Your task to perform on an android device: remove spam from my inbox in the gmail app Image 0: 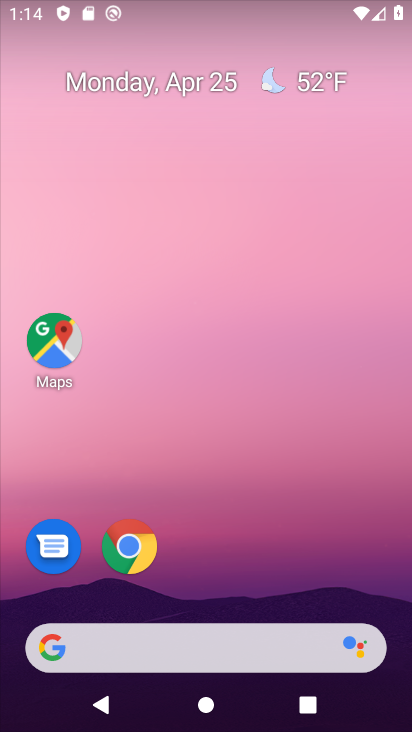
Step 0: drag from (245, 652) to (217, 156)
Your task to perform on an android device: remove spam from my inbox in the gmail app Image 1: 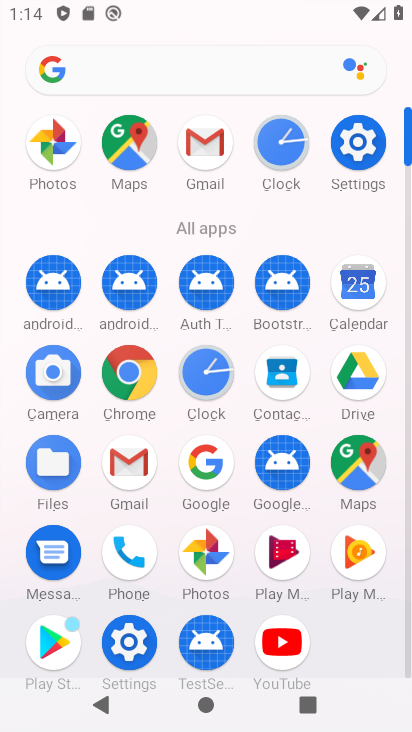
Step 1: click (117, 483)
Your task to perform on an android device: remove spam from my inbox in the gmail app Image 2: 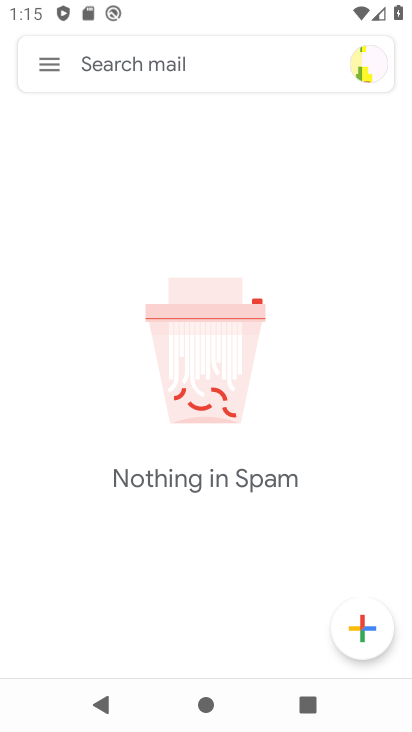
Step 2: task complete